Your task to perform on an android device: find snoozed emails in the gmail app Image 0: 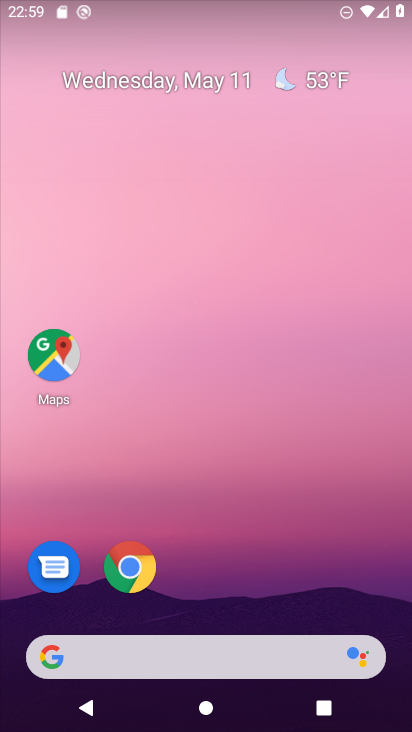
Step 0: drag from (151, 703) to (182, 50)
Your task to perform on an android device: find snoozed emails in the gmail app Image 1: 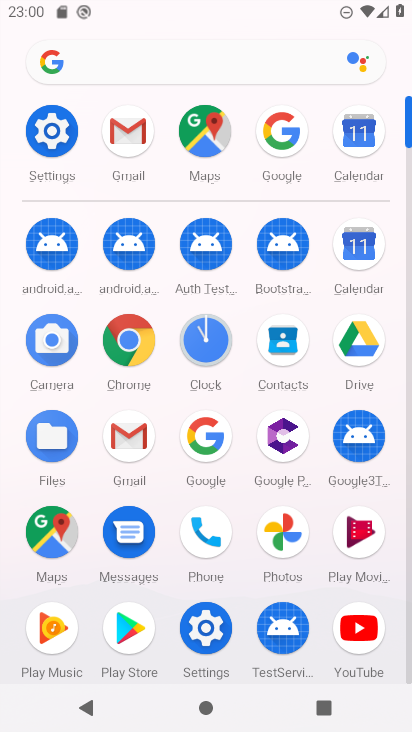
Step 1: click (134, 130)
Your task to perform on an android device: find snoozed emails in the gmail app Image 2: 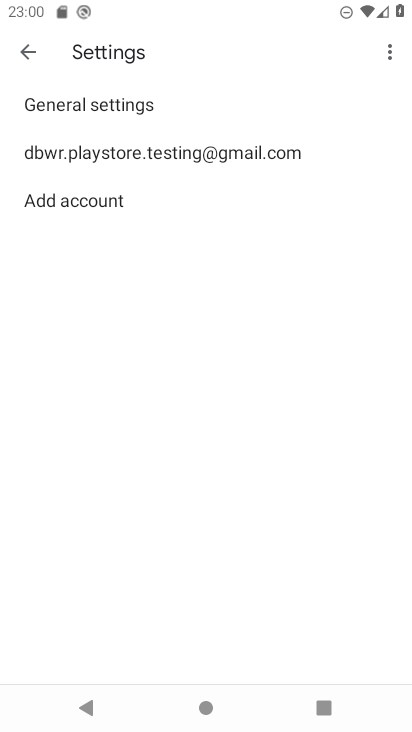
Step 2: click (206, 156)
Your task to perform on an android device: find snoozed emails in the gmail app Image 3: 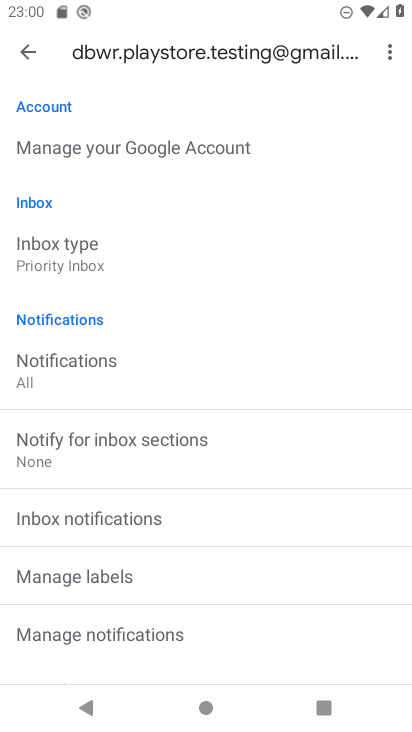
Step 3: click (33, 55)
Your task to perform on an android device: find snoozed emails in the gmail app Image 4: 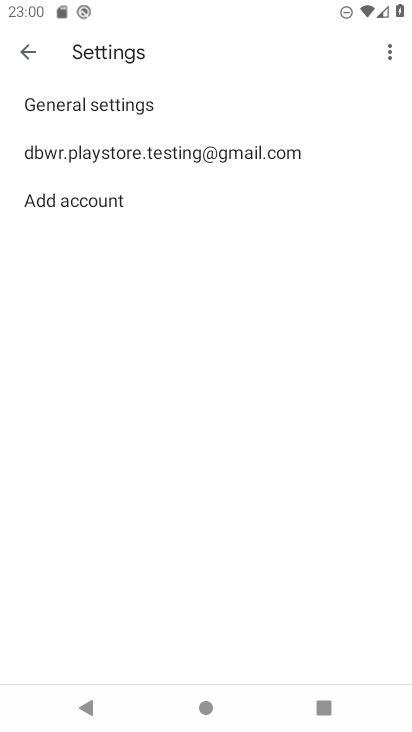
Step 4: click (33, 55)
Your task to perform on an android device: find snoozed emails in the gmail app Image 5: 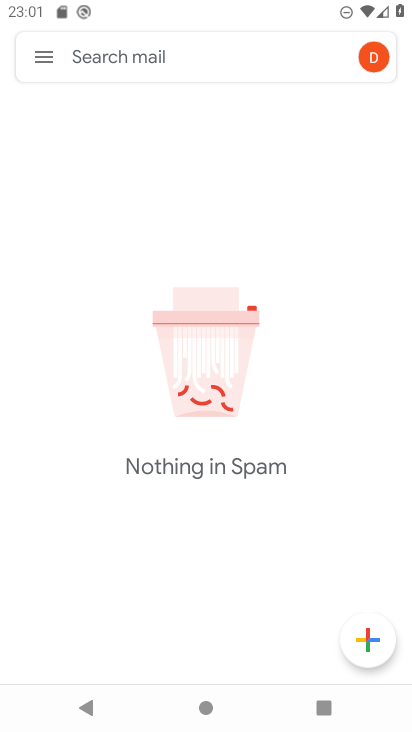
Step 5: click (44, 57)
Your task to perform on an android device: find snoozed emails in the gmail app Image 6: 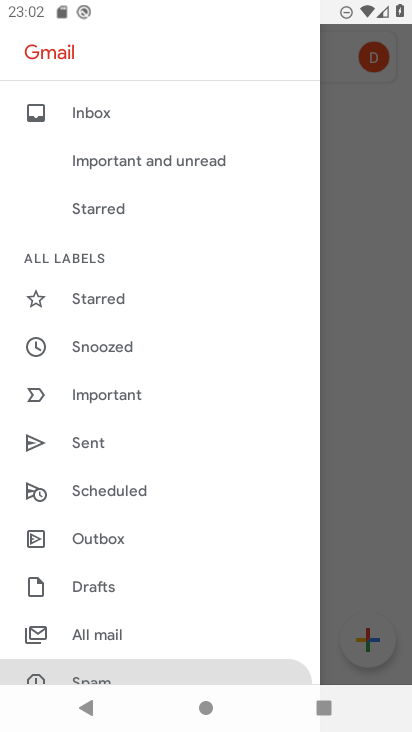
Step 6: click (140, 352)
Your task to perform on an android device: find snoozed emails in the gmail app Image 7: 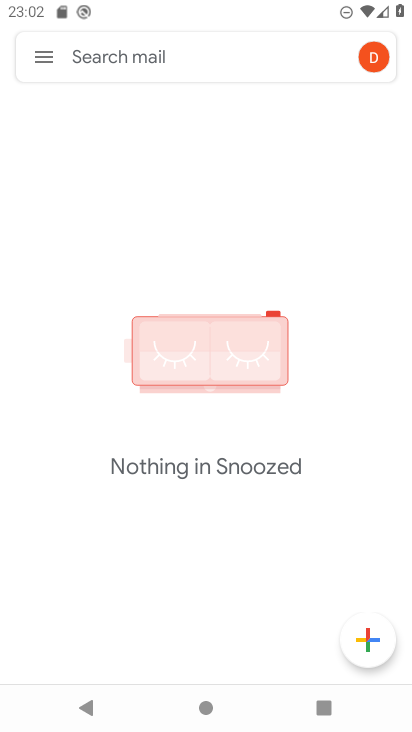
Step 7: task complete